Your task to perform on an android device: Go to eBay Image 0: 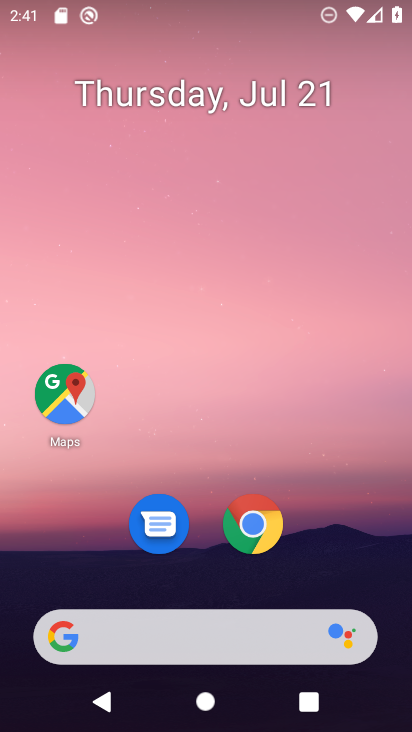
Step 0: press home button
Your task to perform on an android device: Go to eBay Image 1: 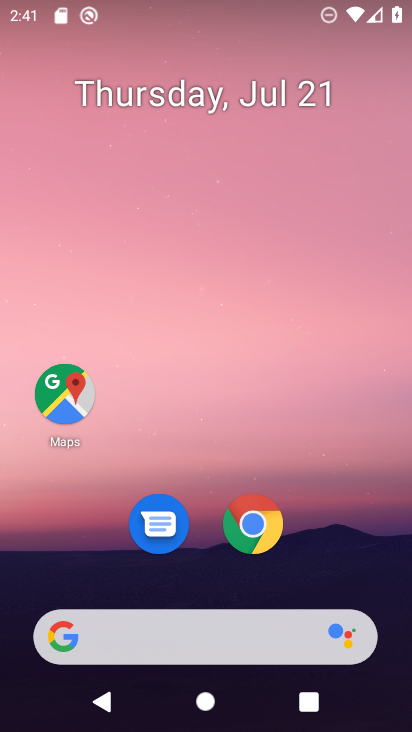
Step 1: click (258, 526)
Your task to perform on an android device: Go to eBay Image 2: 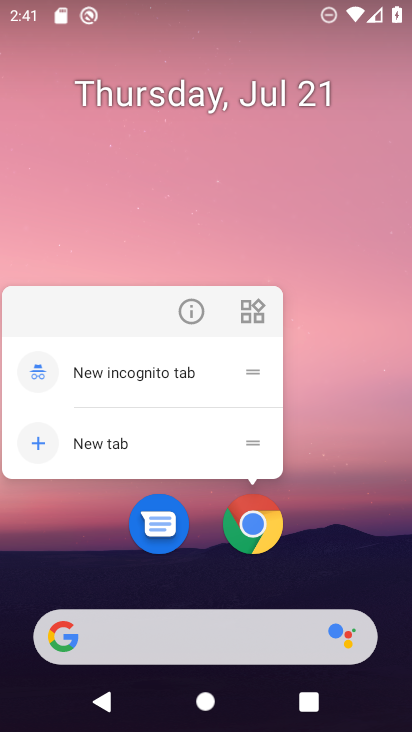
Step 2: click (252, 527)
Your task to perform on an android device: Go to eBay Image 3: 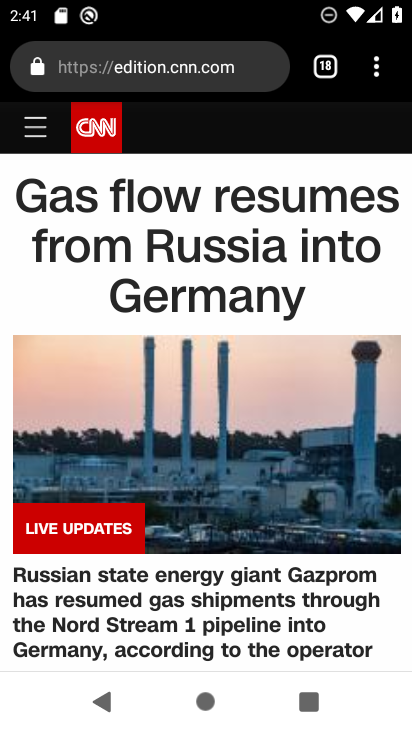
Step 3: drag from (379, 69) to (210, 140)
Your task to perform on an android device: Go to eBay Image 4: 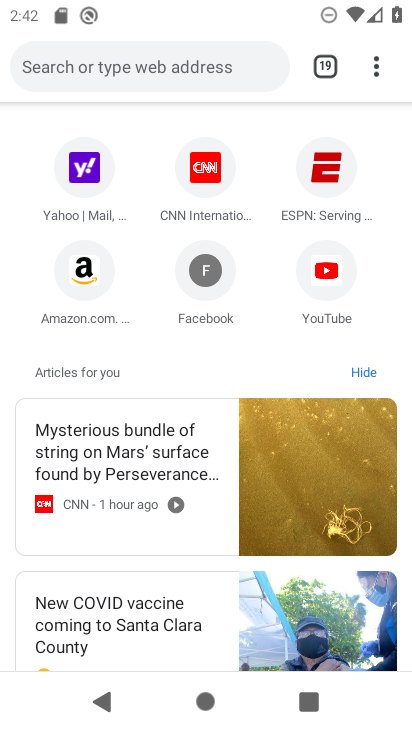
Step 4: click (165, 61)
Your task to perform on an android device: Go to eBay Image 5: 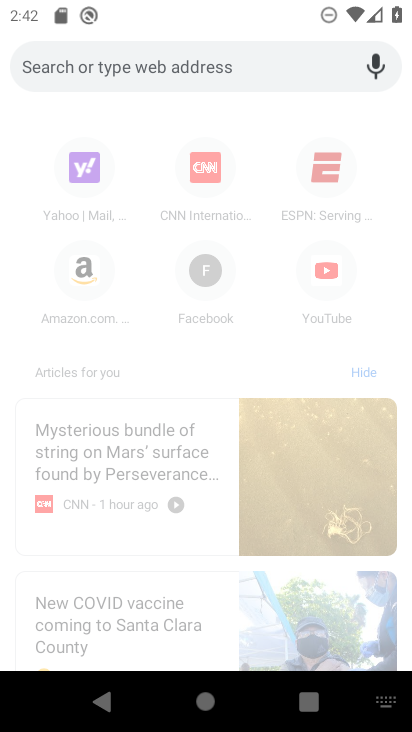
Step 5: type "ebay"
Your task to perform on an android device: Go to eBay Image 6: 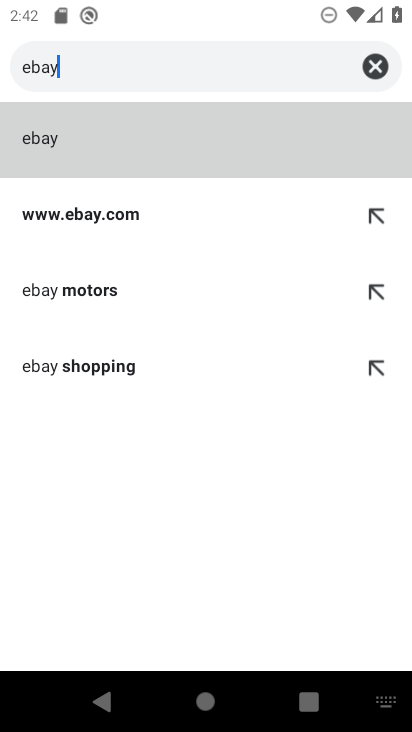
Step 6: click (133, 146)
Your task to perform on an android device: Go to eBay Image 7: 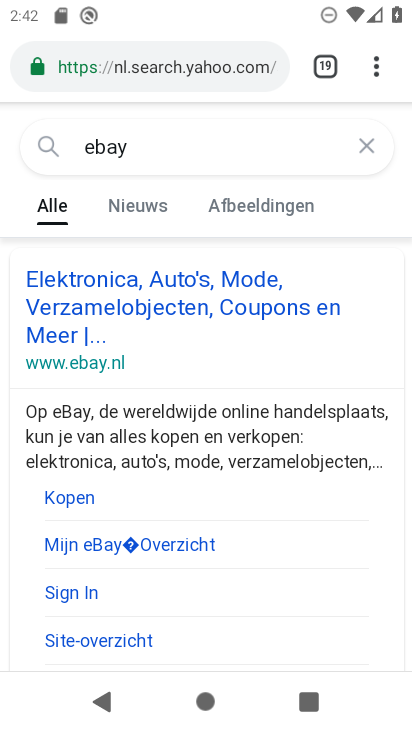
Step 7: click (175, 307)
Your task to perform on an android device: Go to eBay Image 8: 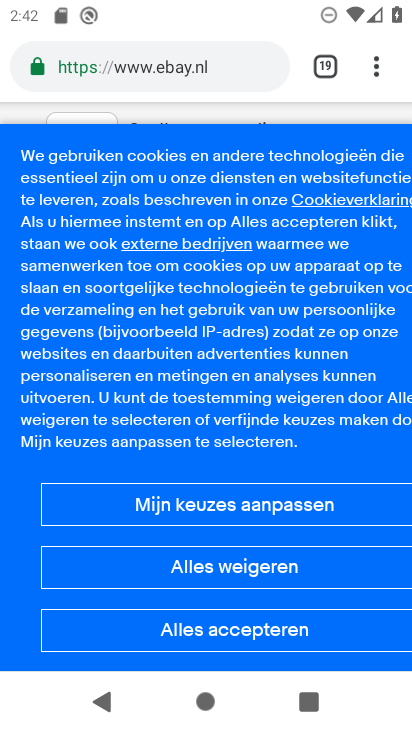
Step 8: task complete